Your task to perform on an android device: star an email in the gmail app Image 0: 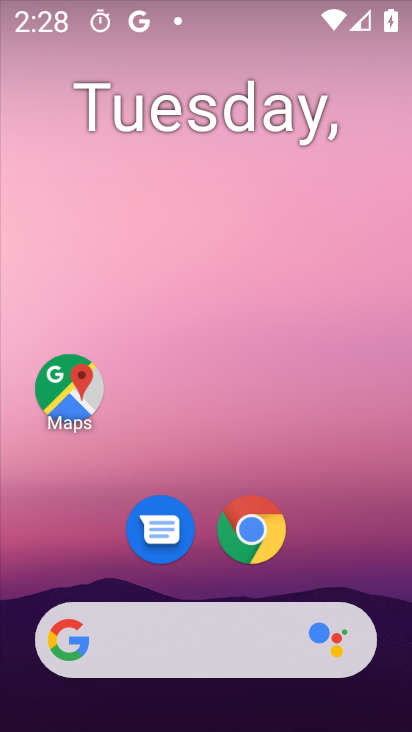
Step 0: drag from (381, 559) to (368, 189)
Your task to perform on an android device: star an email in the gmail app Image 1: 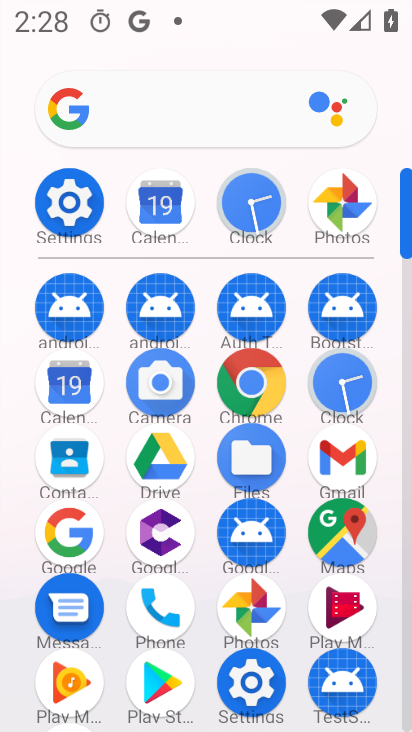
Step 1: click (328, 460)
Your task to perform on an android device: star an email in the gmail app Image 2: 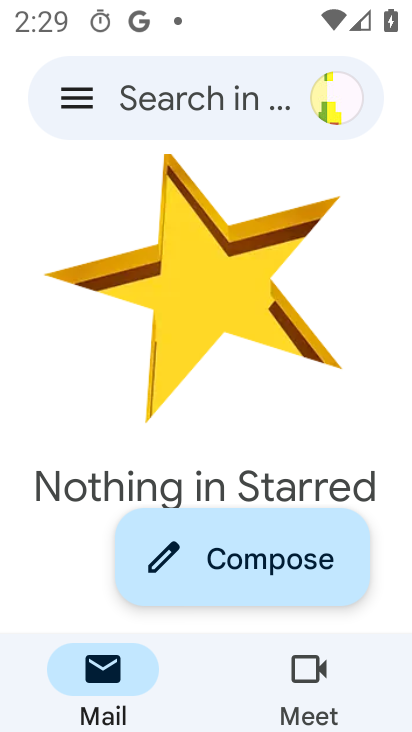
Step 2: press home button
Your task to perform on an android device: star an email in the gmail app Image 3: 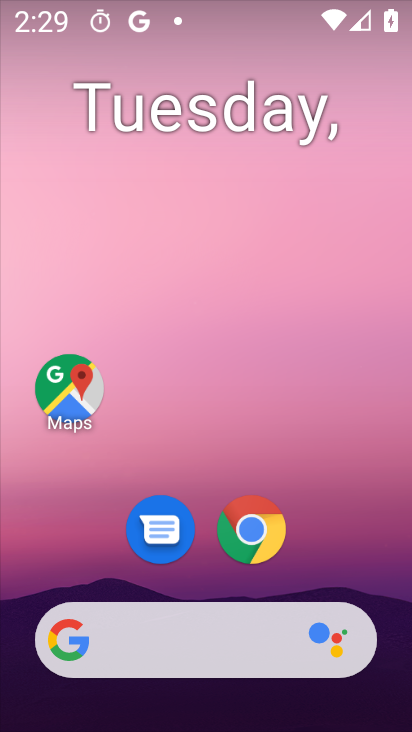
Step 3: drag from (357, 569) to (350, 170)
Your task to perform on an android device: star an email in the gmail app Image 4: 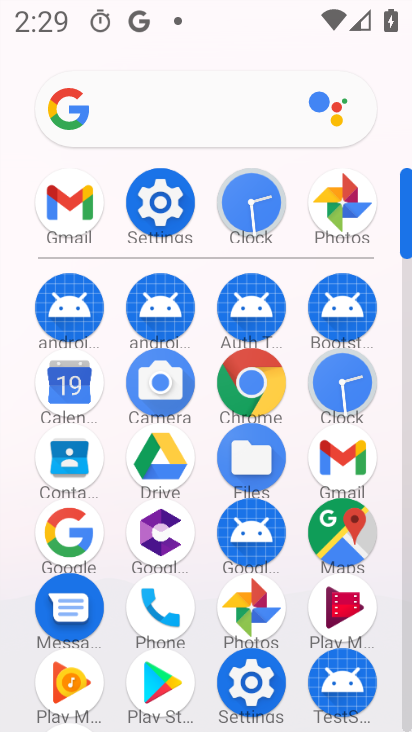
Step 4: click (331, 451)
Your task to perform on an android device: star an email in the gmail app Image 5: 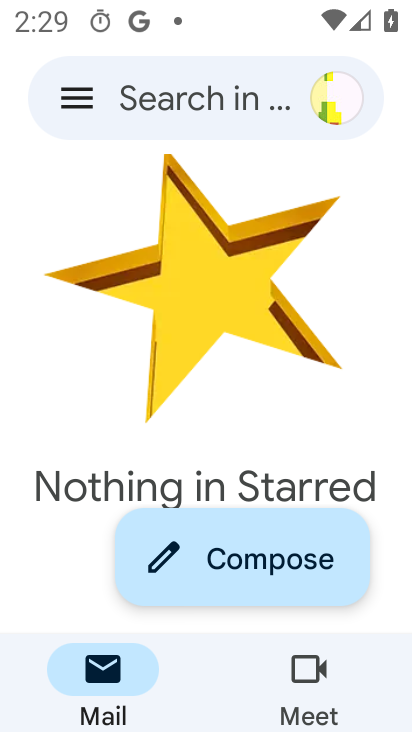
Step 5: click (73, 92)
Your task to perform on an android device: star an email in the gmail app Image 6: 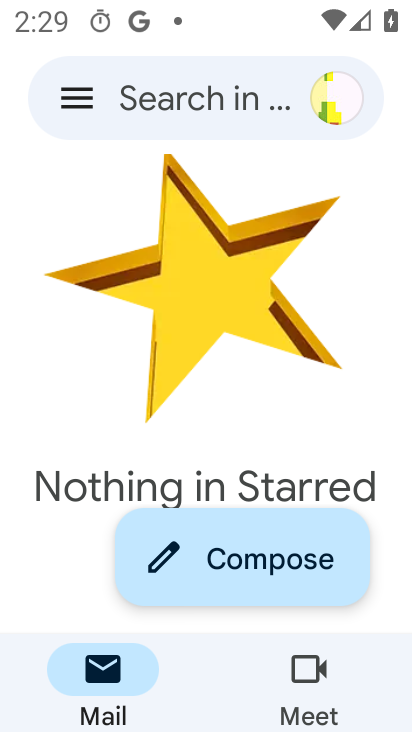
Step 6: click (80, 89)
Your task to perform on an android device: star an email in the gmail app Image 7: 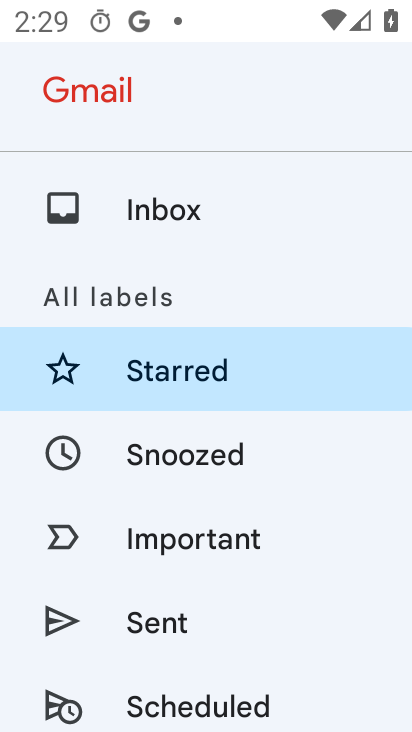
Step 7: click (164, 203)
Your task to perform on an android device: star an email in the gmail app Image 8: 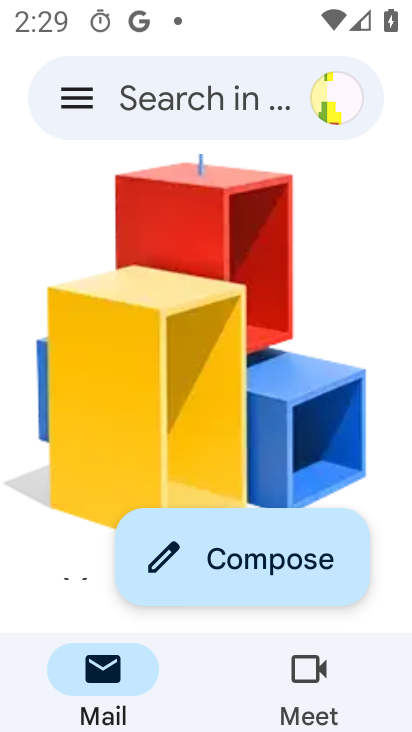
Step 8: task complete